Your task to perform on an android device: Go to sound settings Image 0: 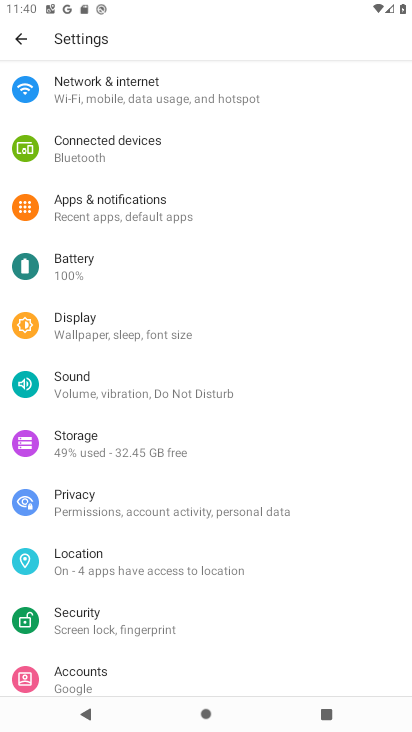
Step 0: click (112, 386)
Your task to perform on an android device: Go to sound settings Image 1: 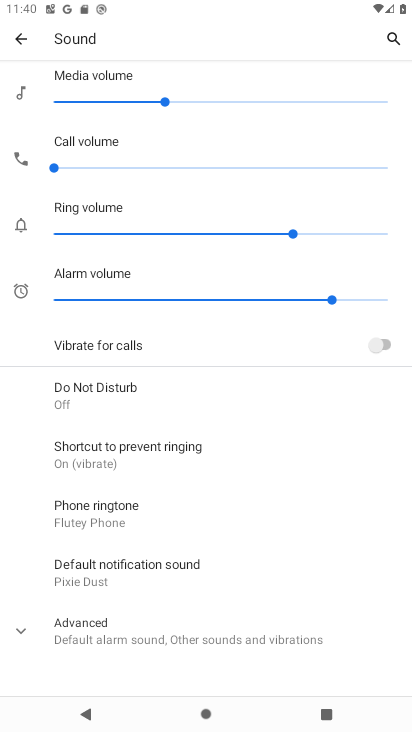
Step 1: click (97, 625)
Your task to perform on an android device: Go to sound settings Image 2: 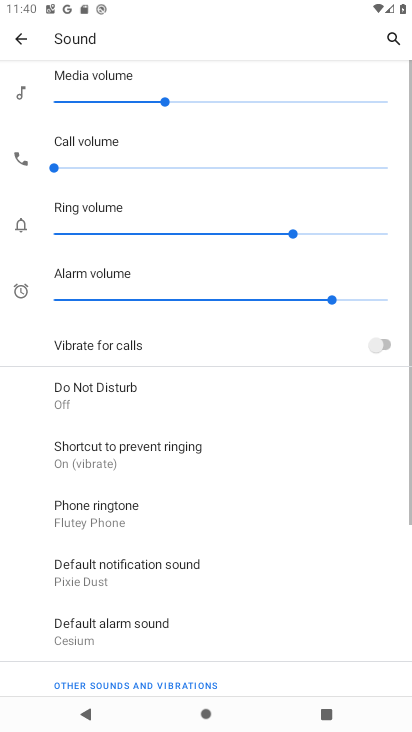
Step 2: task complete